Your task to perform on an android device: Go to Amazon Image 0: 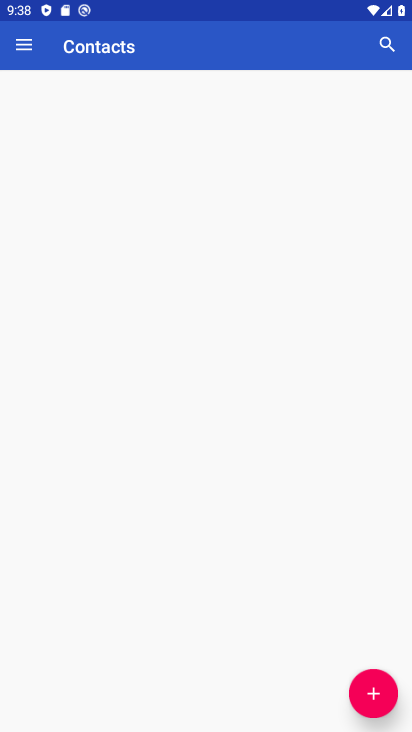
Step 0: press home button
Your task to perform on an android device: Go to Amazon Image 1: 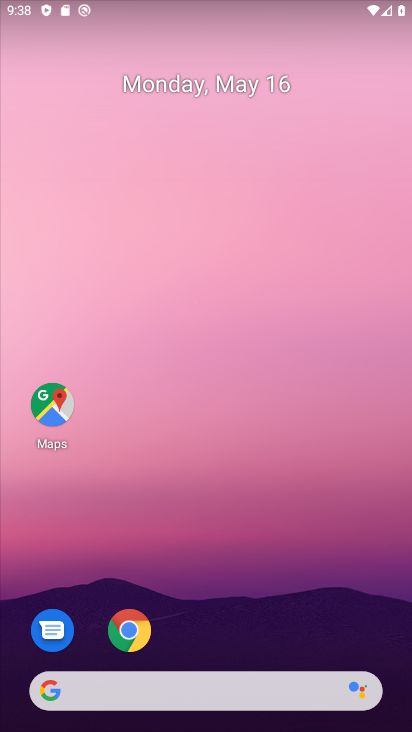
Step 1: click (133, 626)
Your task to perform on an android device: Go to Amazon Image 2: 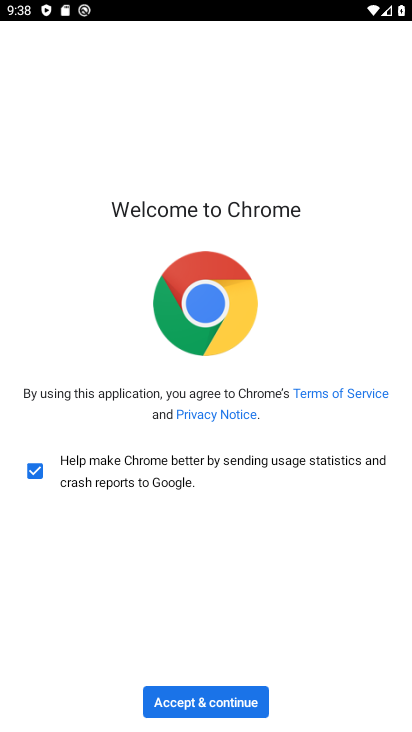
Step 2: click (225, 706)
Your task to perform on an android device: Go to Amazon Image 3: 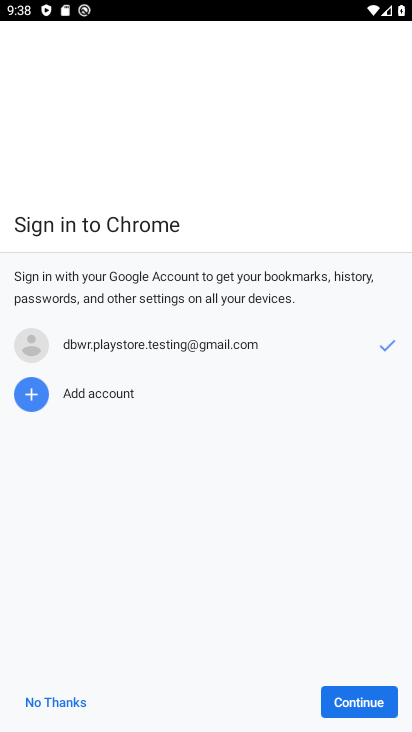
Step 3: click (368, 698)
Your task to perform on an android device: Go to Amazon Image 4: 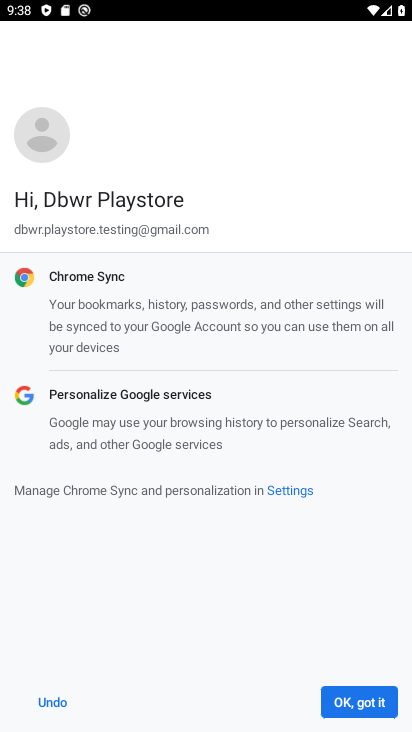
Step 4: click (368, 696)
Your task to perform on an android device: Go to Amazon Image 5: 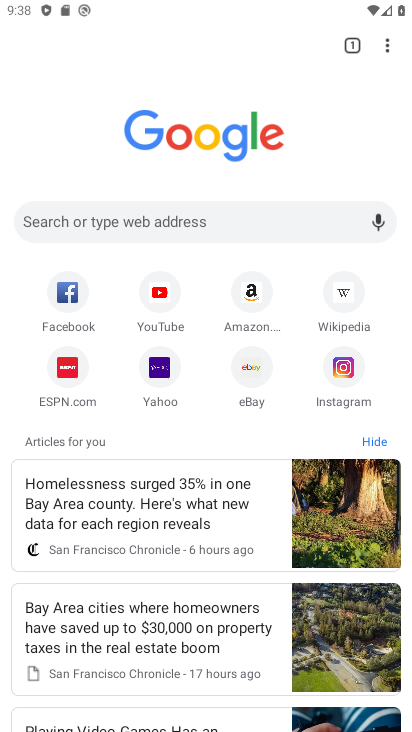
Step 5: click (254, 295)
Your task to perform on an android device: Go to Amazon Image 6: 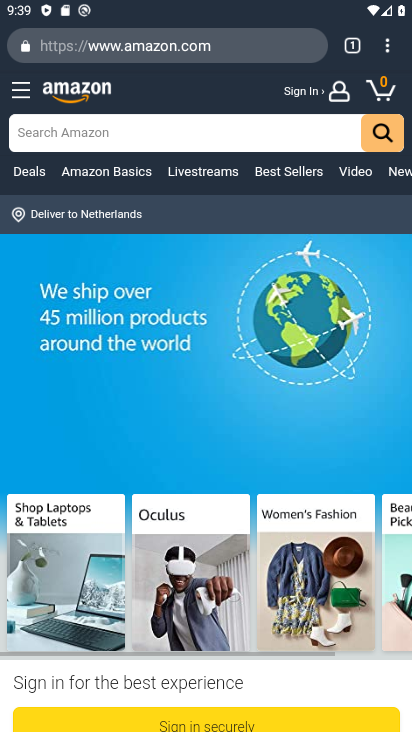
Step 6: task complete